Your task to perform on an android device: open a new tab in the chrome app Image 0: 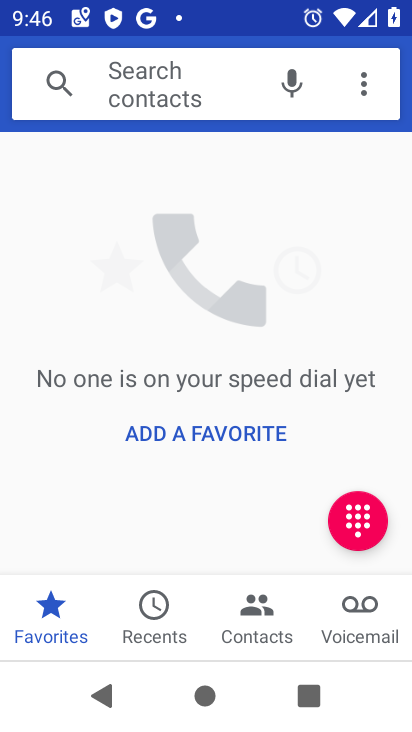
Step 0: press home button
Your task to perform on an android device: open a new tab in the chrome app Image 1: 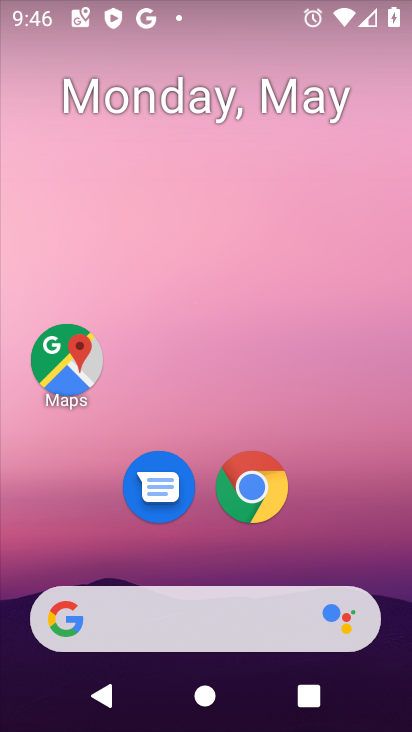
Step 1: click (259, 482)
Your task to perform on an android device: open a new tab in the chrome app Image 2: 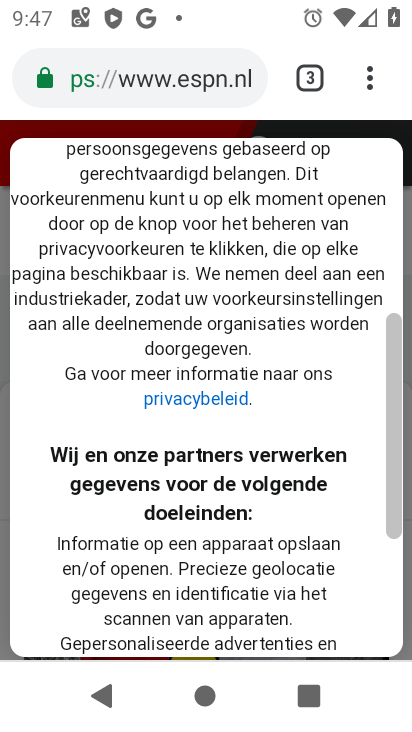
Step 2: click (379, 83)
Your task to perform on an android device: open a new tab in the chrome app Image 3: 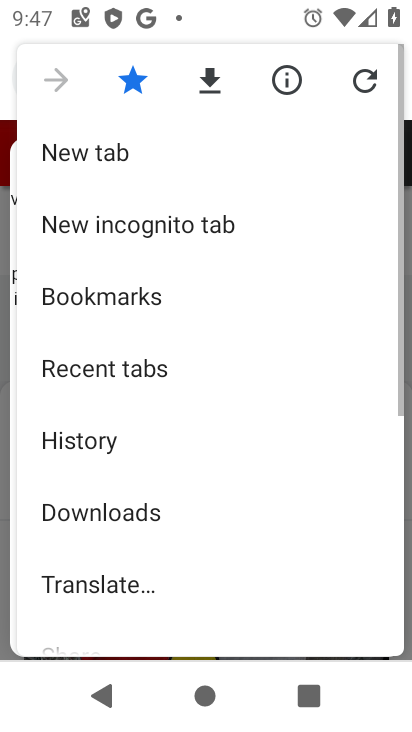
Step 3: click (154, 159)
Your task to perform on an android device: open a new tab in the chrome app Image 4: 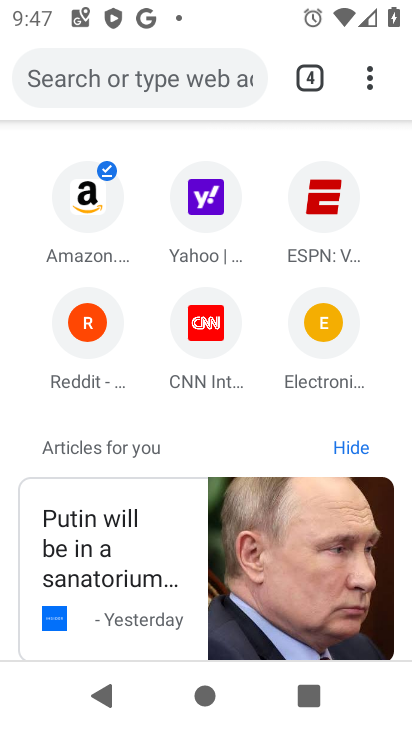
Step 4: task complete